Your task to perform on an android device: uninstall "Facebook Messenger" Image 0: 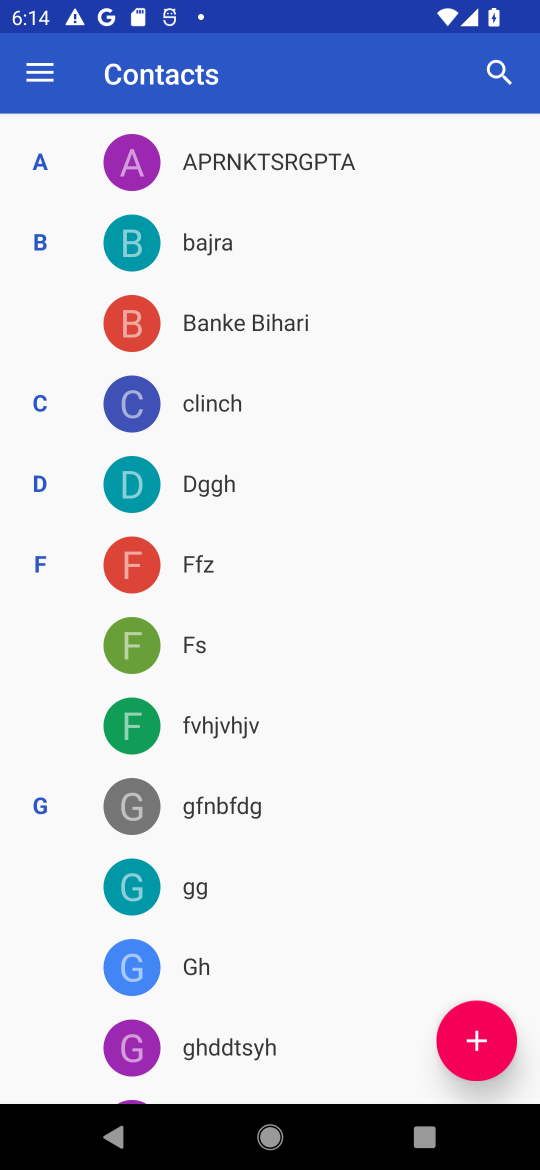
Step 0: press home button
Your task to perform on an android device: uninstall "Facebook Messenger" Image 1: 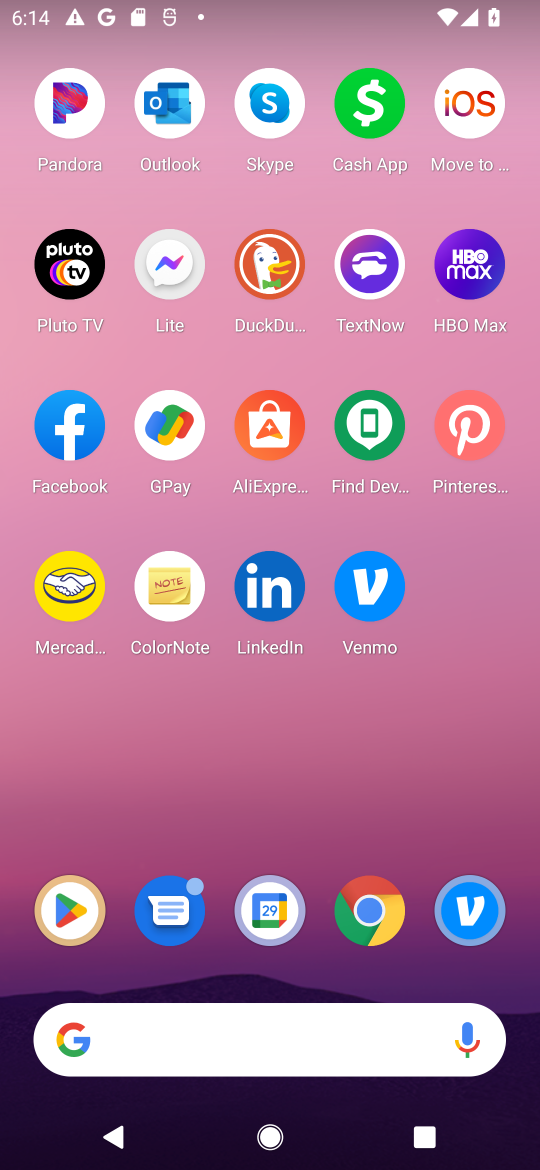
Step 1: drag from (240, 962) to (179, 274)
Your task to perform on an android device: uninstall "Facebook Messenger" Image 2: 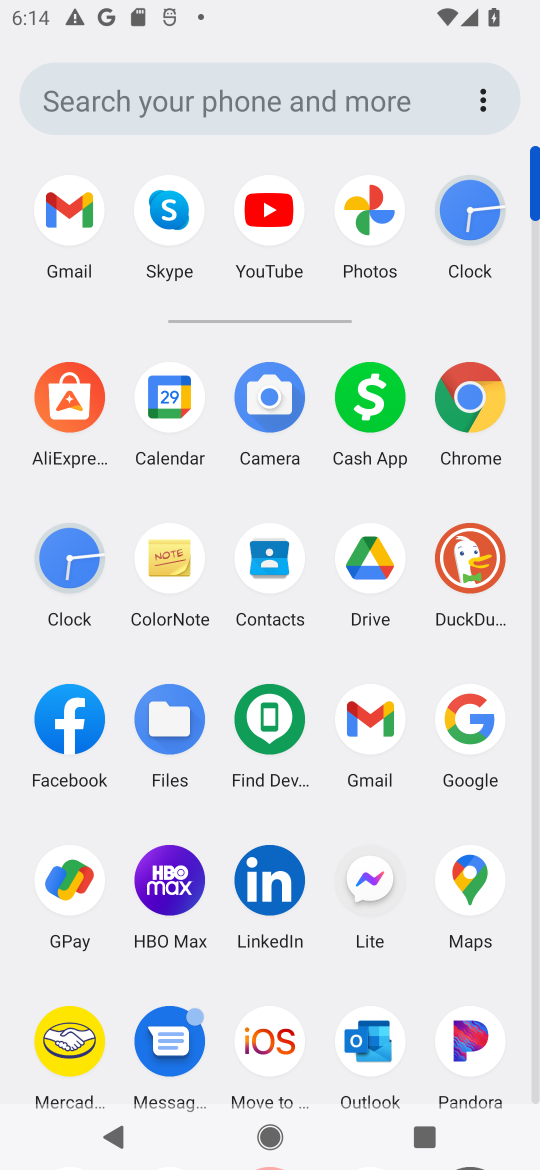
Step 2: drag from (419, 1046) to (370, 481)
Your task to perform on an android device: uninstall "Facebook Messenger" Image 3: 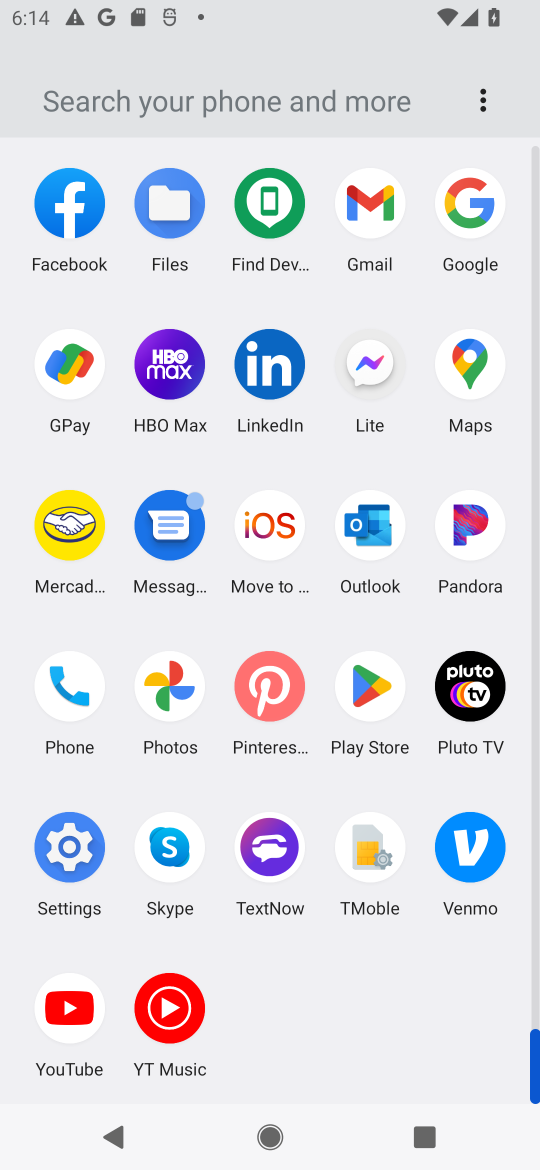
Step 3: click (366, 704)
Your task to perform on an android device: uninstall "Facebook Messenger" Image 4: 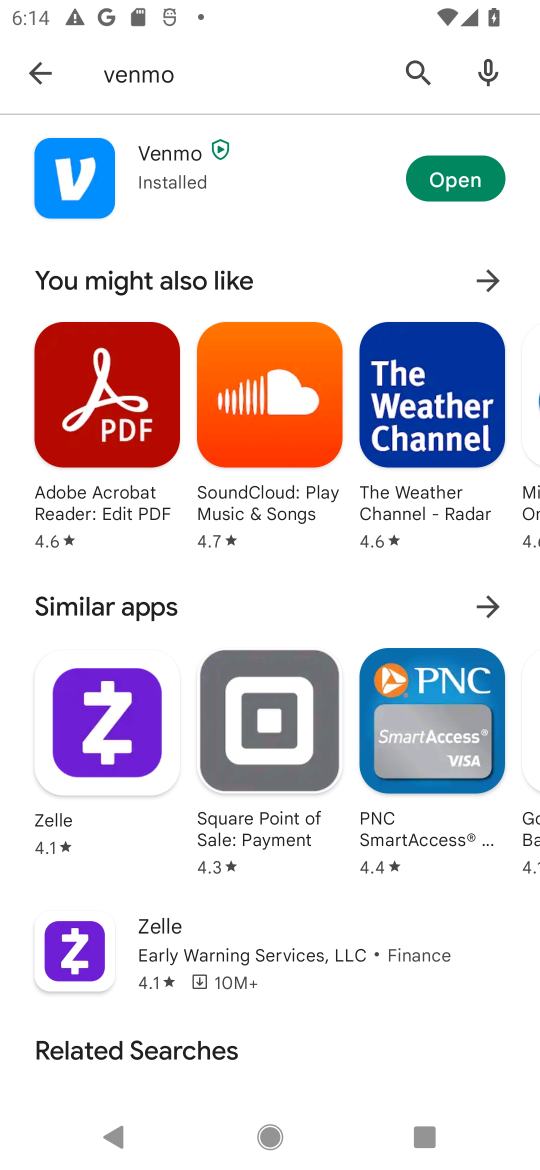
Step 4: click (38, 72)
Your task to perform on an android device: uninstall "Facebook Messenger" Image 5: 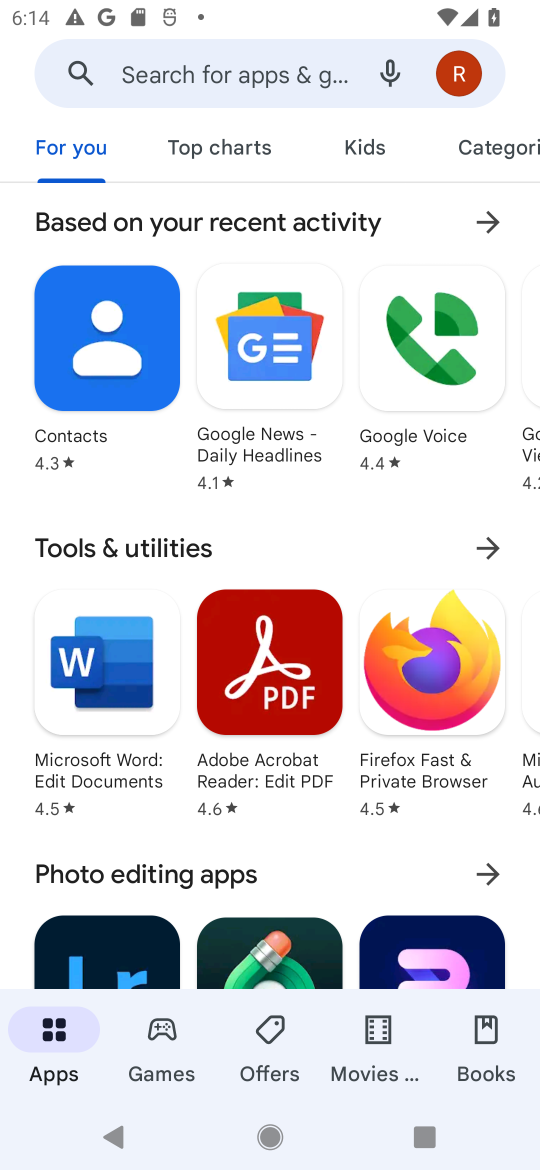
Step 5: click (272, 73)
Your task to perform on an android device: uninstall "Facebook Messenger" Image 6: 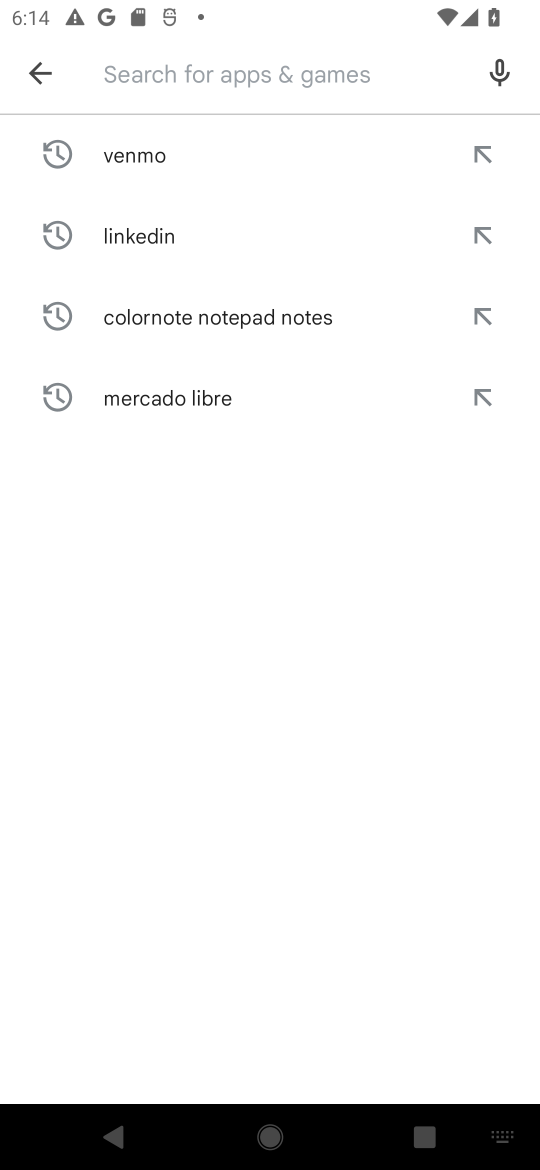
Step 6: type "Facebook Messenger"
Your task to perform on an android device: uninstall "Facebook Messenger" Image 7: 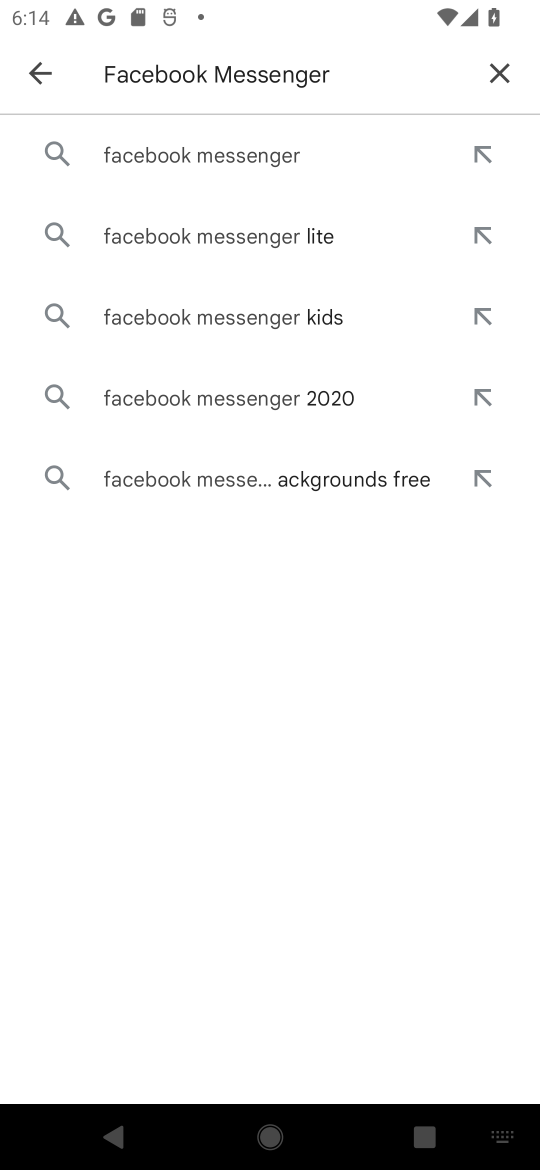
Step 7: click (223, 153)
Your task to perform on an android device: uninstall "Facebook Messenger" Image 8: 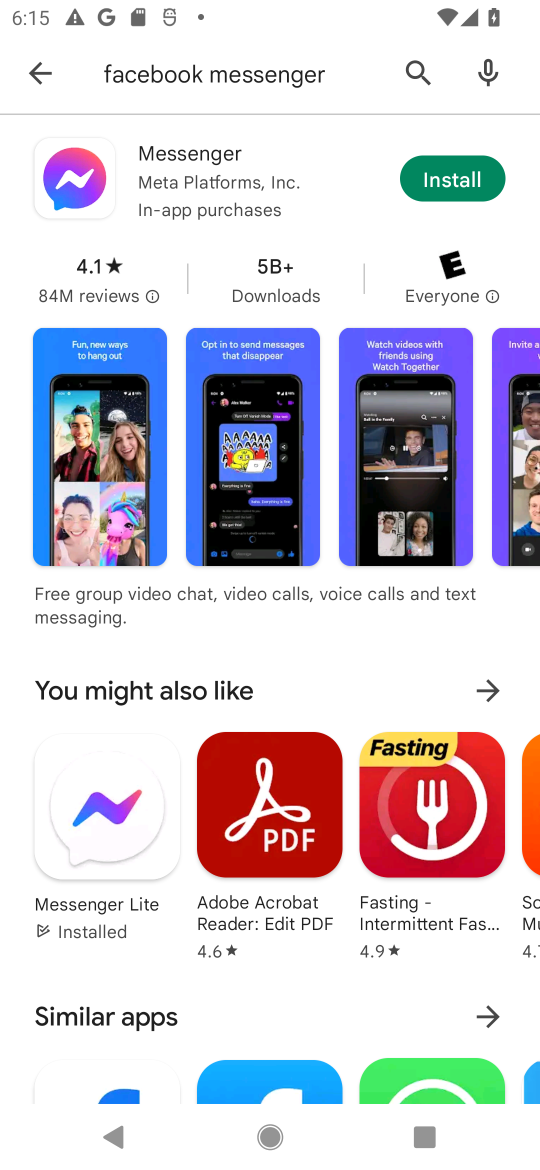
Step 8: task complete